Your task to perform on an android device: set the timer Image 0: 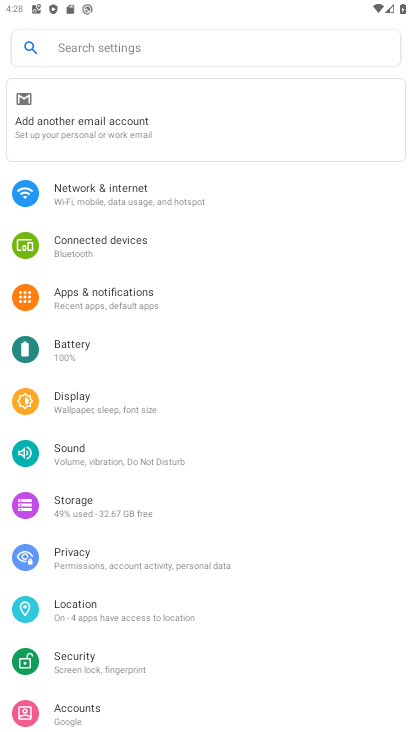
Step 0: press home button
Your task to perform on an android device: set the timer Image 1: 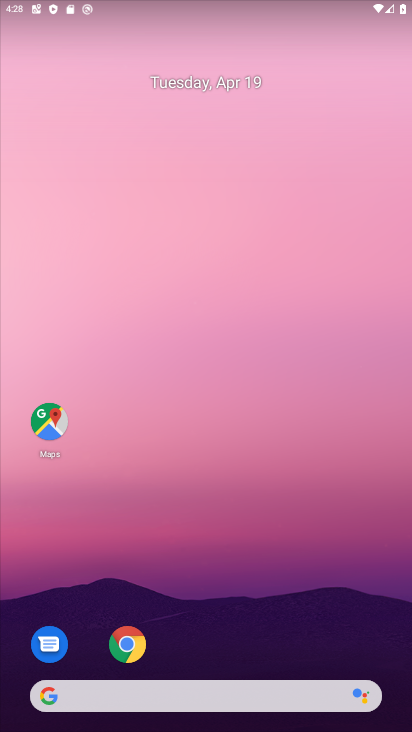
Step 1: drag from (247, 483) to (259, 221)
Your task to perform on an android device: set the timer Image 2: 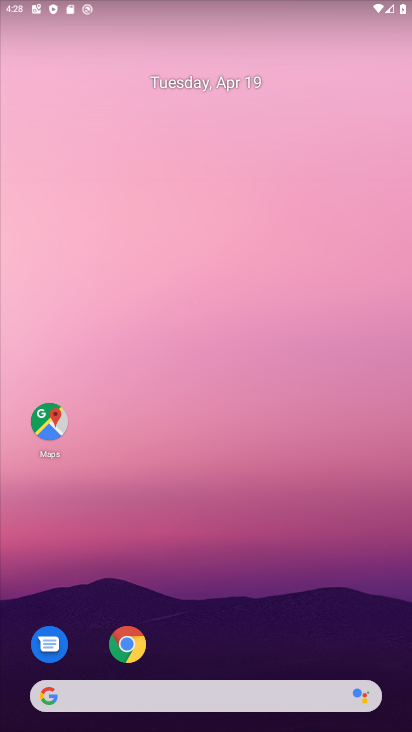
Step 2: drag from (254, 612) to (270, 253)
Your task to perform on an android device: set the timer Image 3: 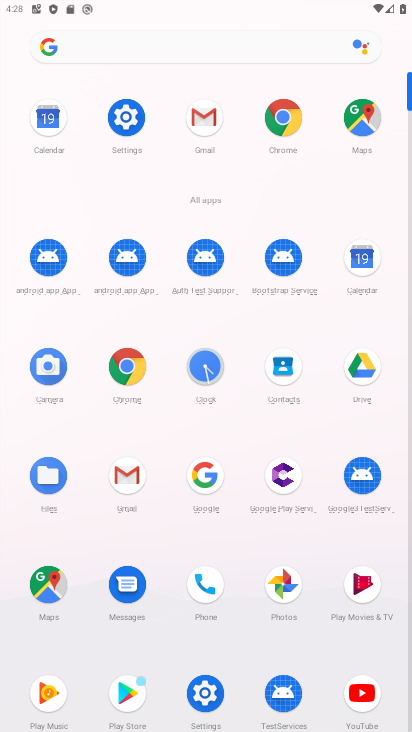
Step 3: click (206, 369)
Your task to perform on an android device: set the timer Image 4: 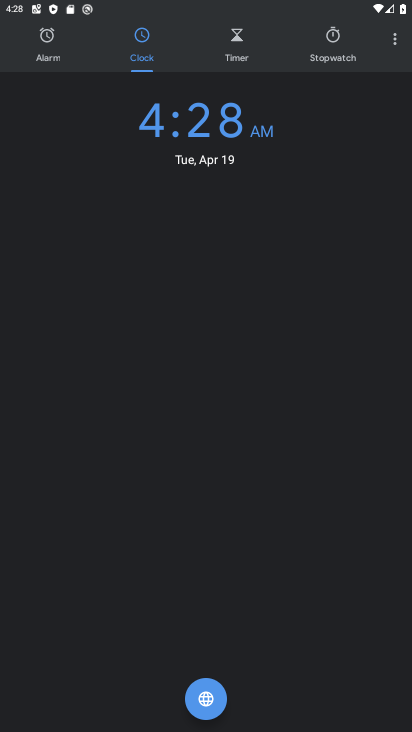
Step 4: click (246, 55)
Your task to perform on an android device: set the timer Image 5: 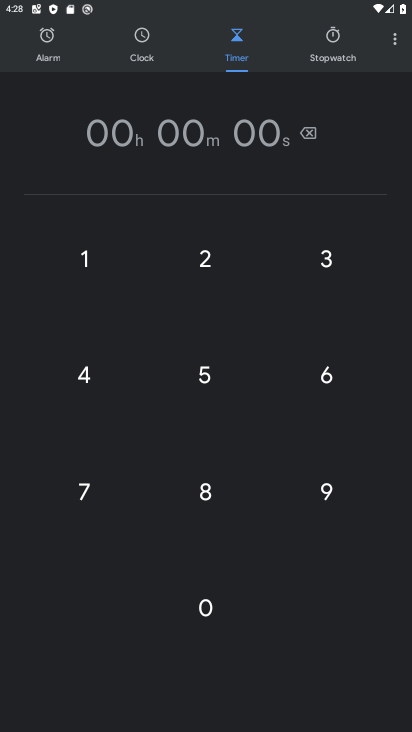
Step 5: click (218, 274)
Your task to perform on an android device: set the timer Image 6: 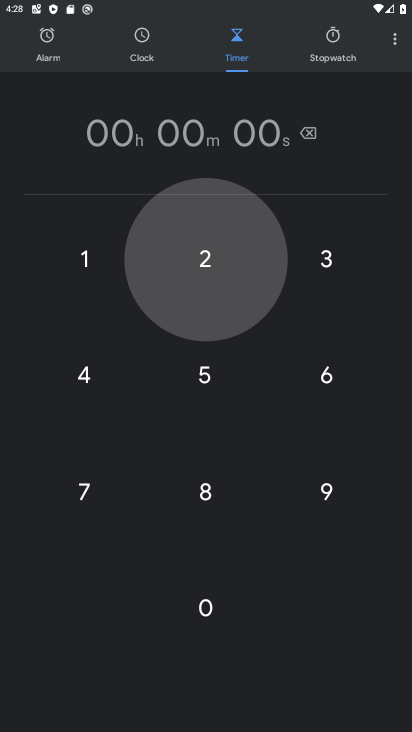
Step 6: click (322, 275)
Your task to perform on an android device: set the timer Image 7: 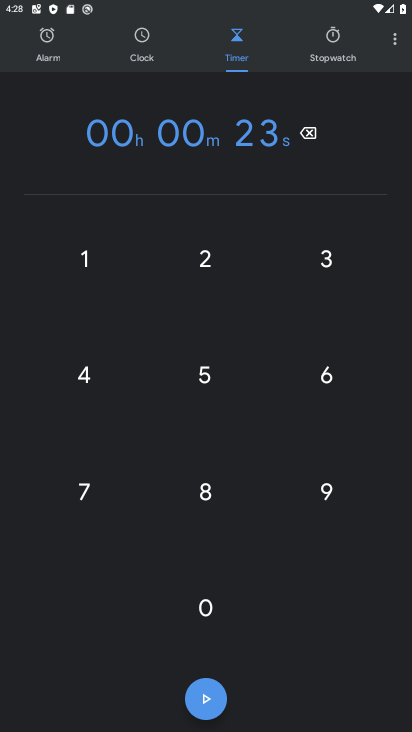
Step 7: click (217, 705)
Your task to perform on an android device: set the timer Image 8: 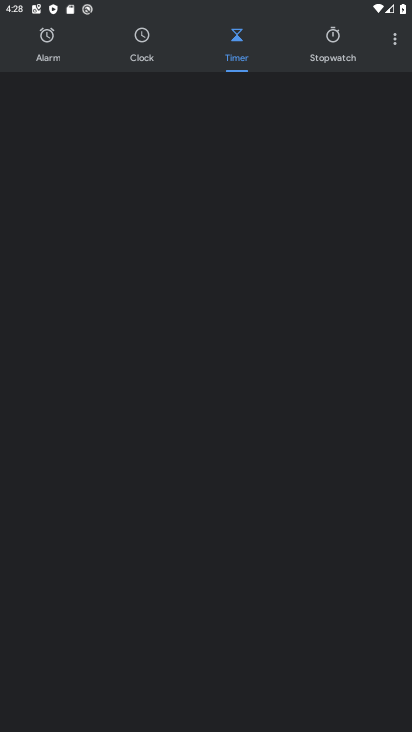
Step 8: task complete